Your task to perform on an android device: Clear all items from cart on target. Search for "logitech g502" on target, select the first entry, and add it to the cart. Image 0: 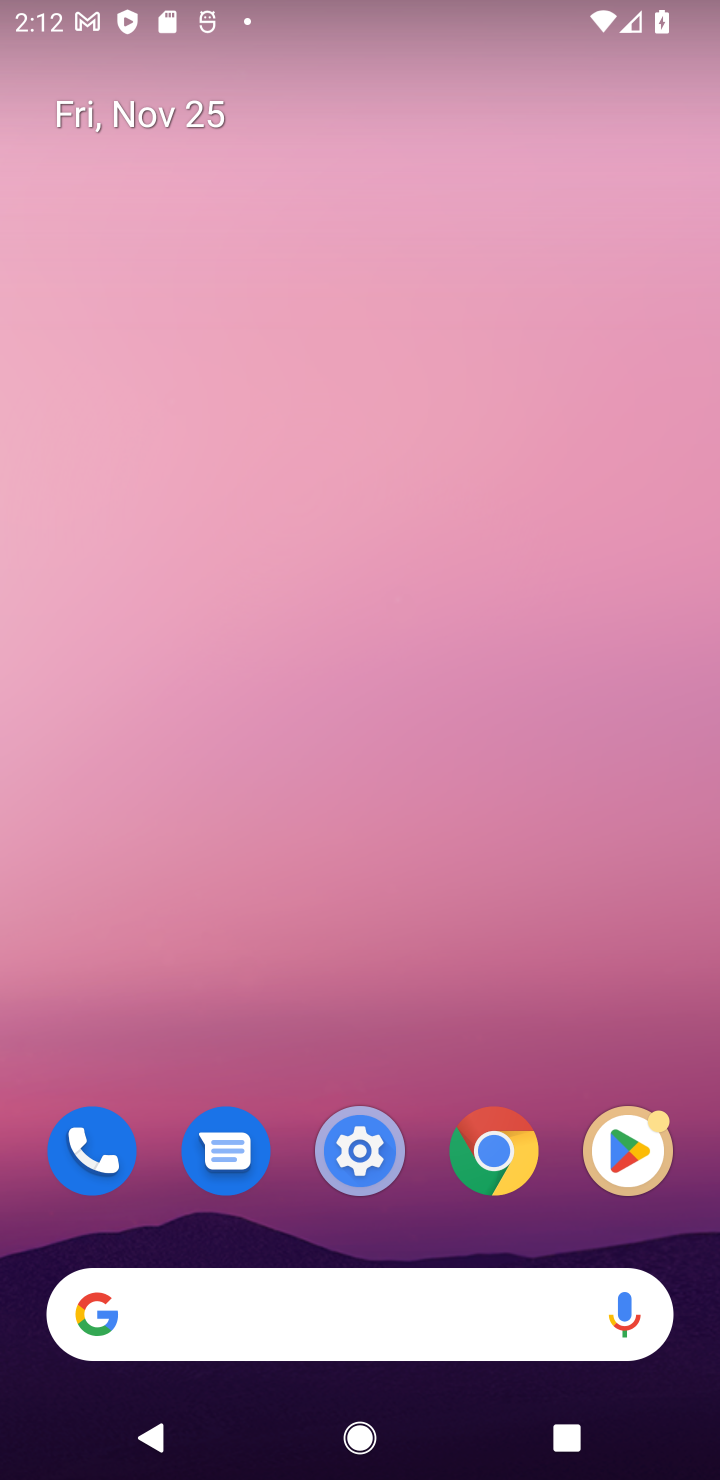
Step 0: click (399, 1349)
Your task to perform on an android device: Clear all items from cart on target. Search for "logitech g502" on target, select the first entry, and add it to the cart. Image 1: 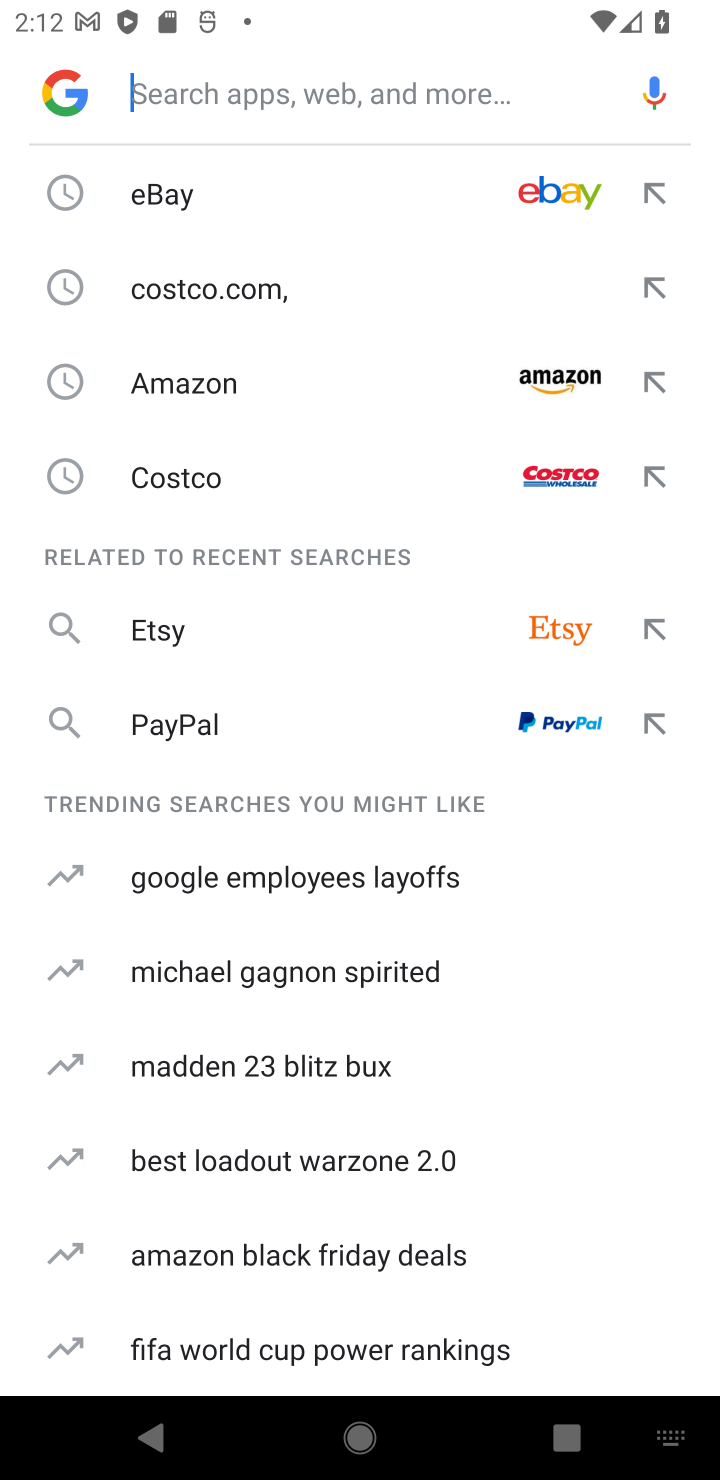
Step 1: type "target"
Your task to perform on an android device: Clear all items from cart on target. Search for "logitech g502" on target, select the first entry, and add it to the cart. Image 2: 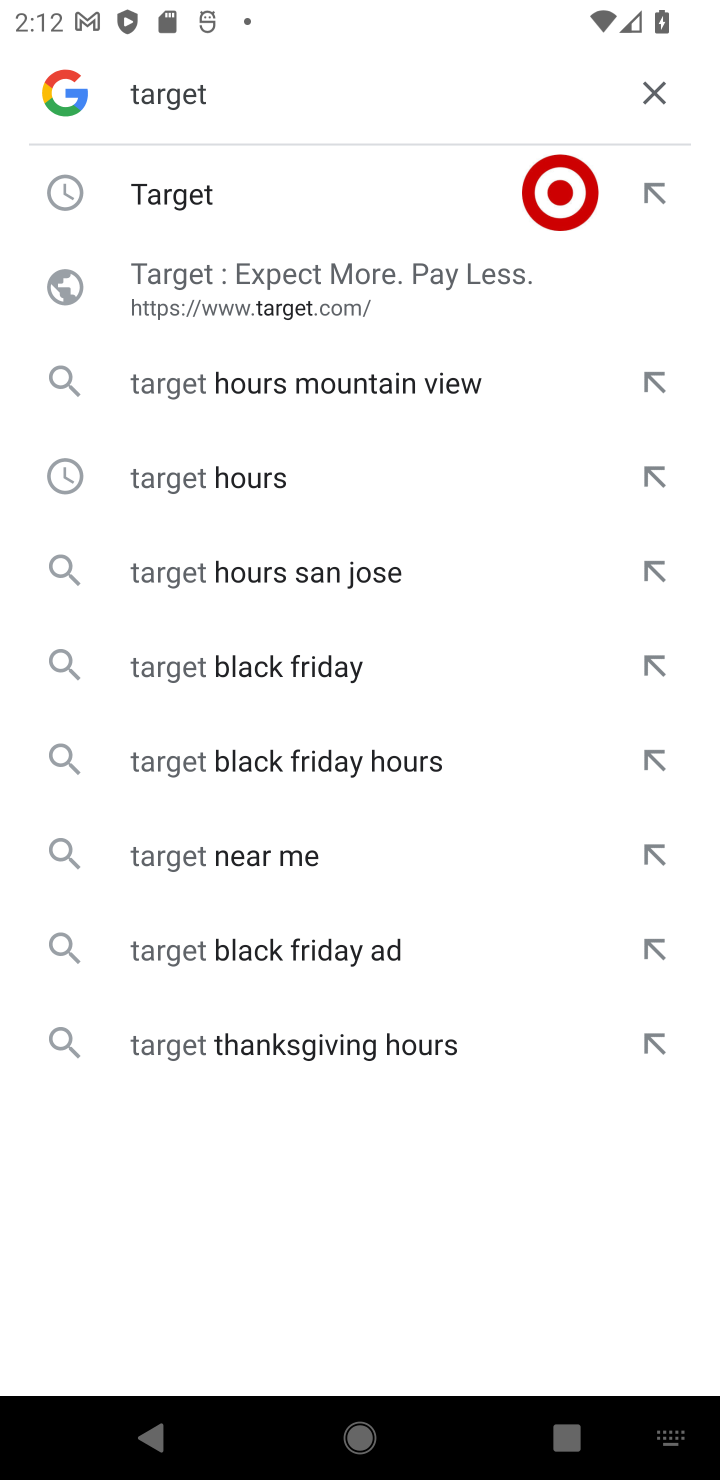
Step 2: click (391, 197)
Your task to perform on an android device: Clear all items from cart on target. Search for "logitech g502" on target, select the first entry, and add it to the cart. Image 3: 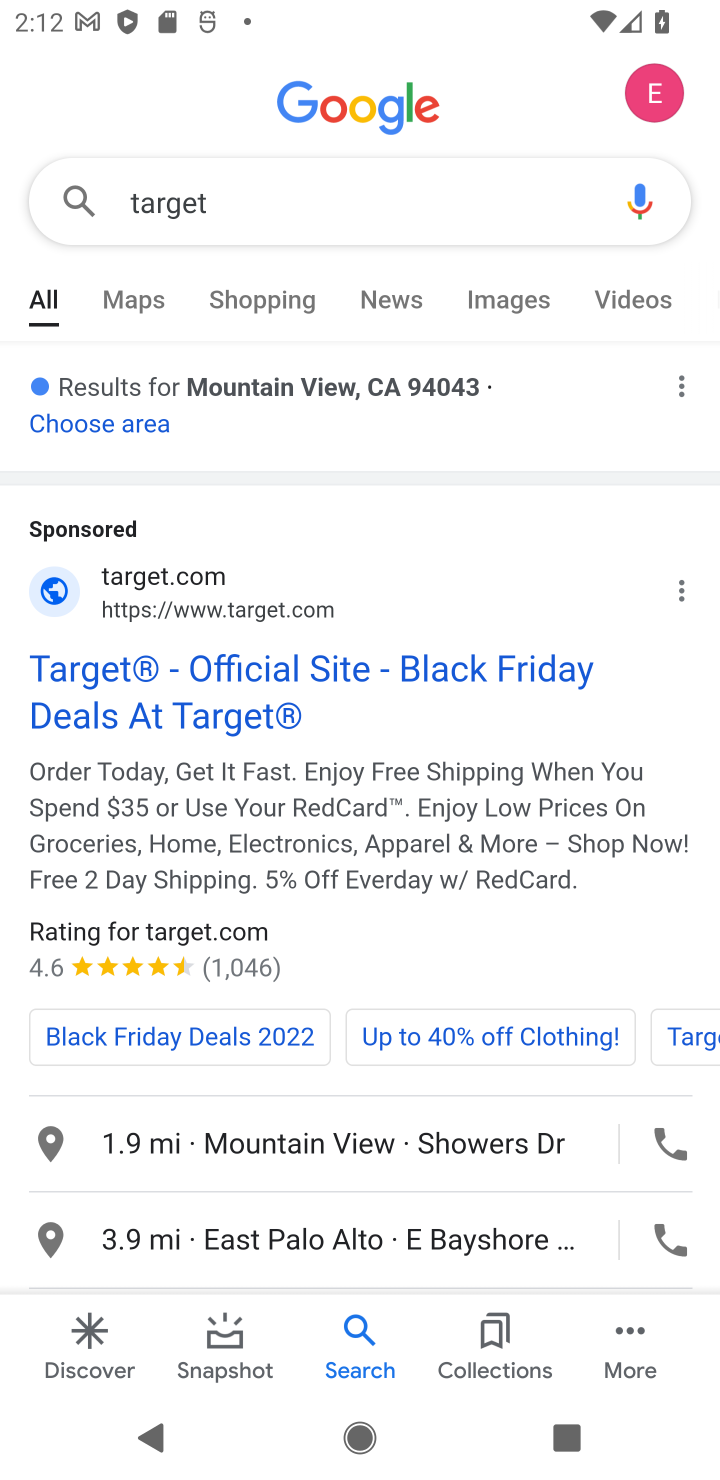
Step 3: click (185, 679)
Your task to perform on an android device: Clear all items from cart on target. Search for "logitech g502" on target, select the first entry, and add it to the cart. Image 4: 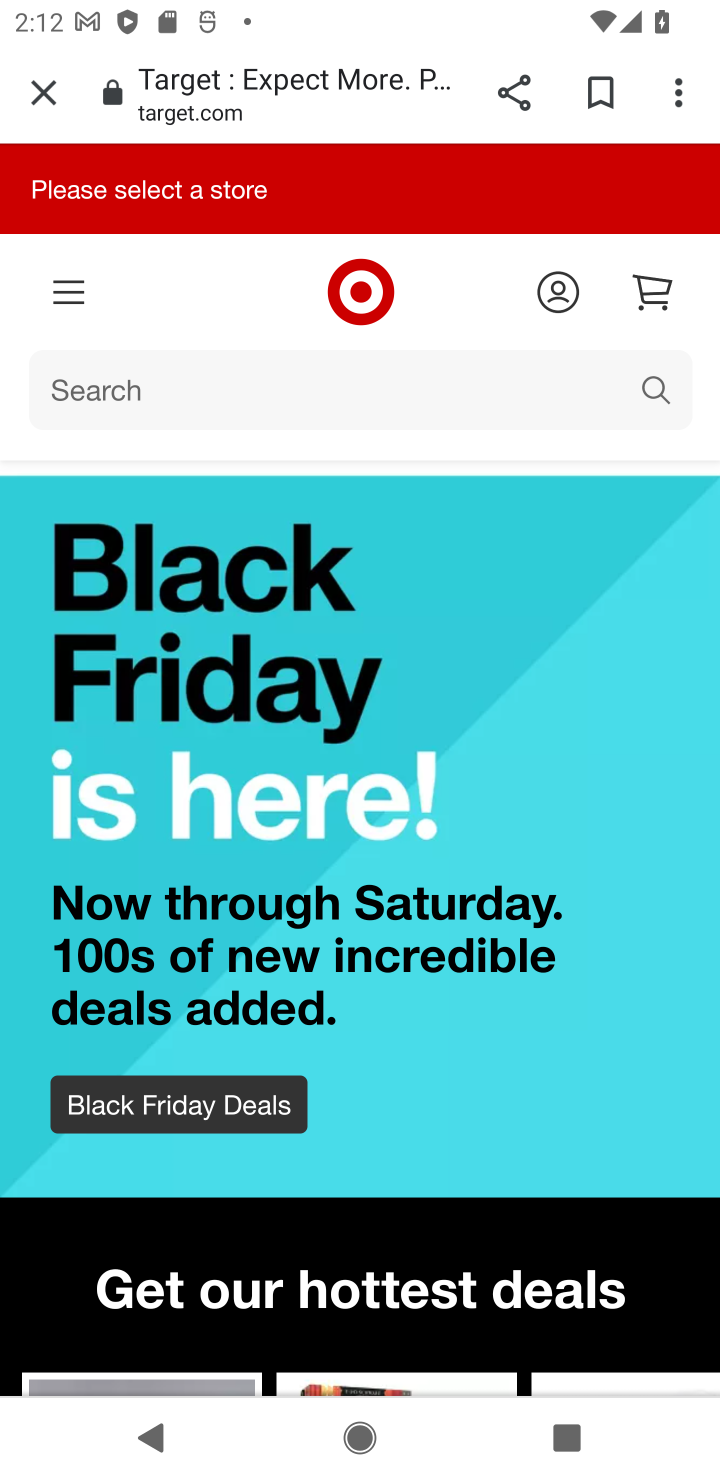
Step 4: click (225, 355)
Your task to perform on an android device: Clear all items from cart on target. Search for "logitech g502" on target, select the first entry, and add it to the cart. Image 5: 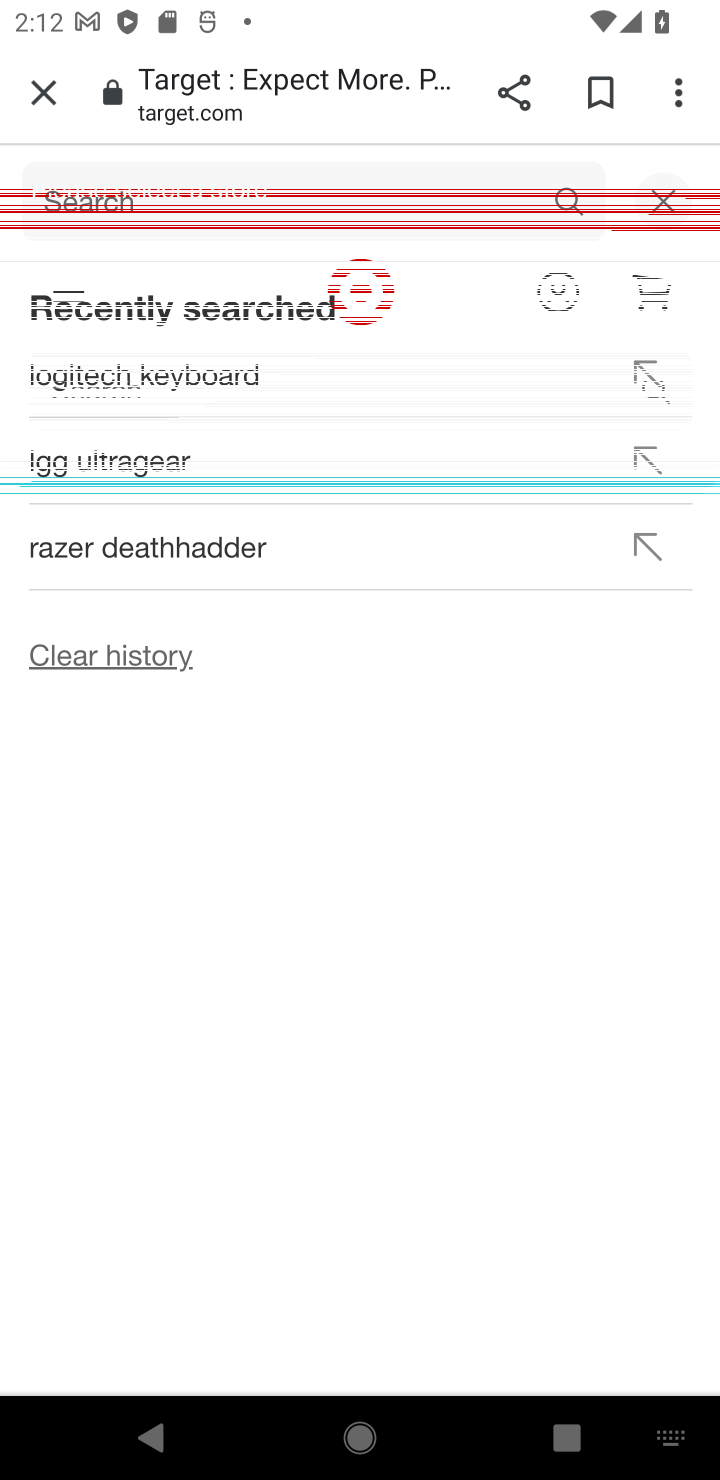
Step 5: type "logitech g502"
Your task to perform on an android device: Clear all items from cart on target. Search for "logitech g502" on target, select the first entry, and add it to the cart. Image 6: 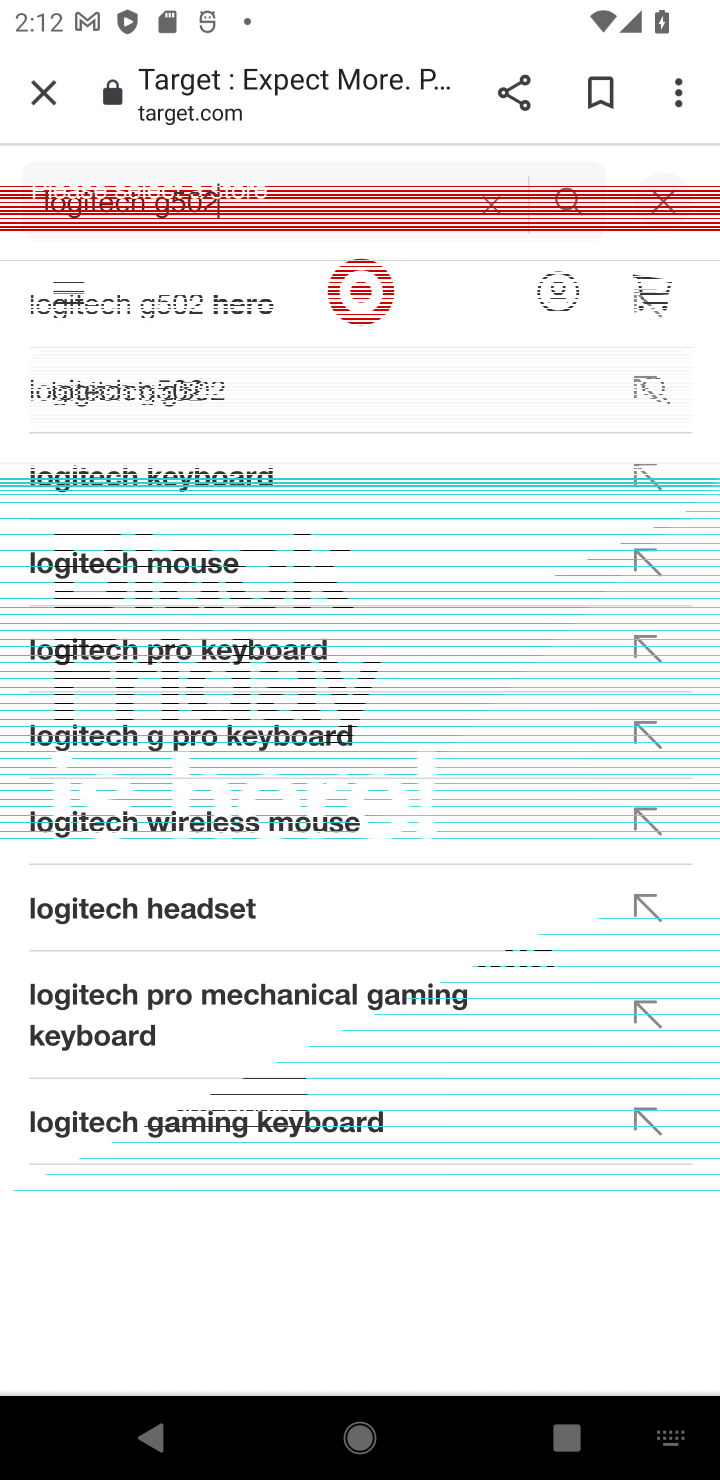
Step 6: click (291, 376)
Your task to perform on an android device: Clear all items from cart on target. Search for "logitech g502" on target, select the first entry, and add it to the cart. Image 7: 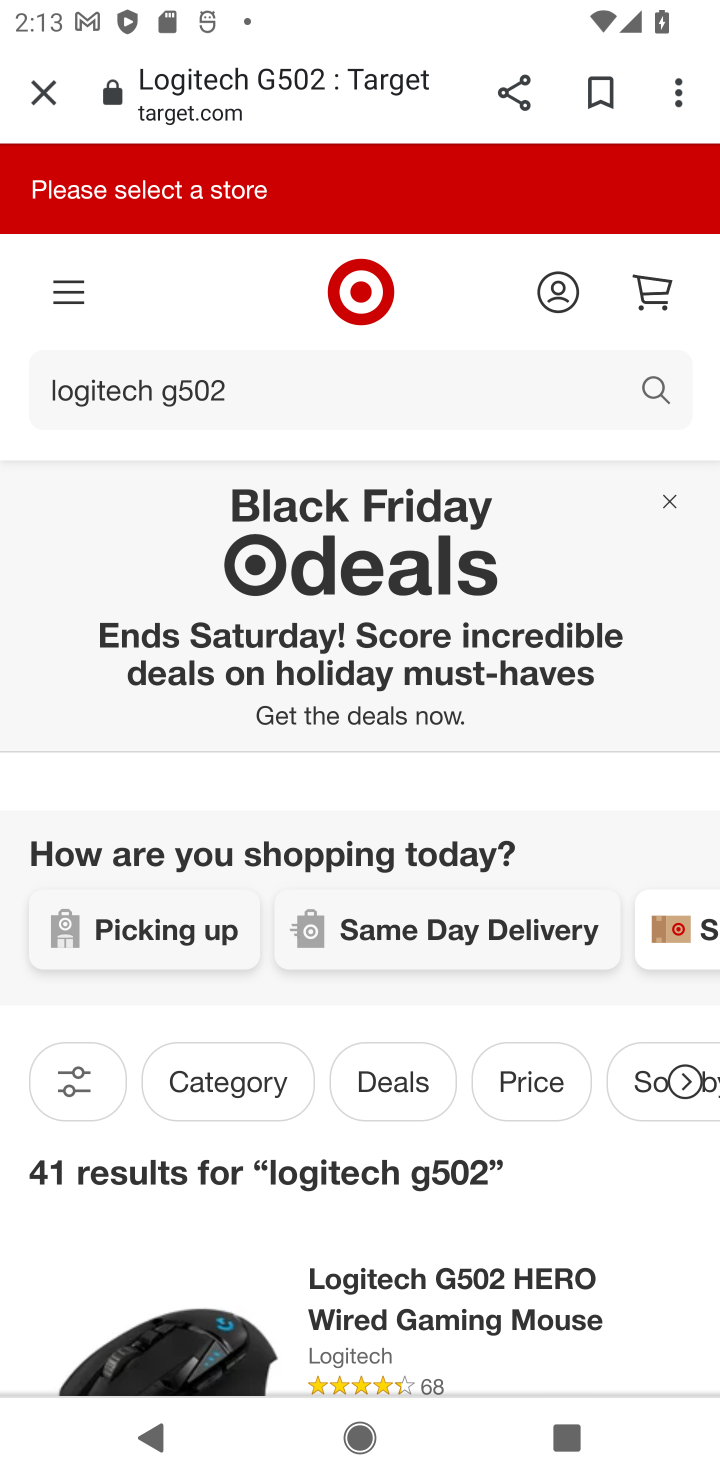
Step 7: click (422, 1376)
Your task to perform on an android device: Clear all items from cart on target. Search for "logitech g502" on target, select the first entry, and add it to the cart. Image 8: 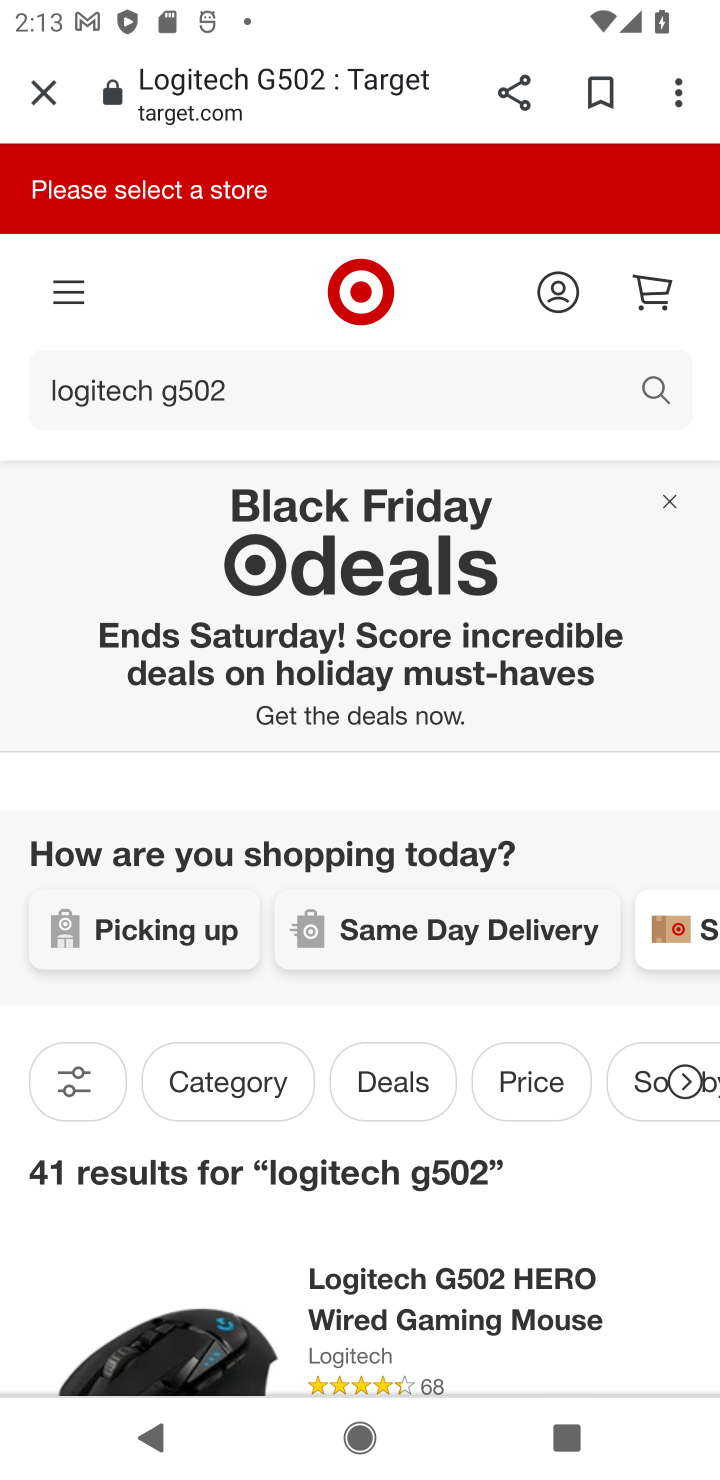
Step 8: click (422, 1376)
Your task to perform on an android device: Clear all items from cart on target. Search for "logitech g502" on target, select the first entry, and add it to the cart. Image 9: 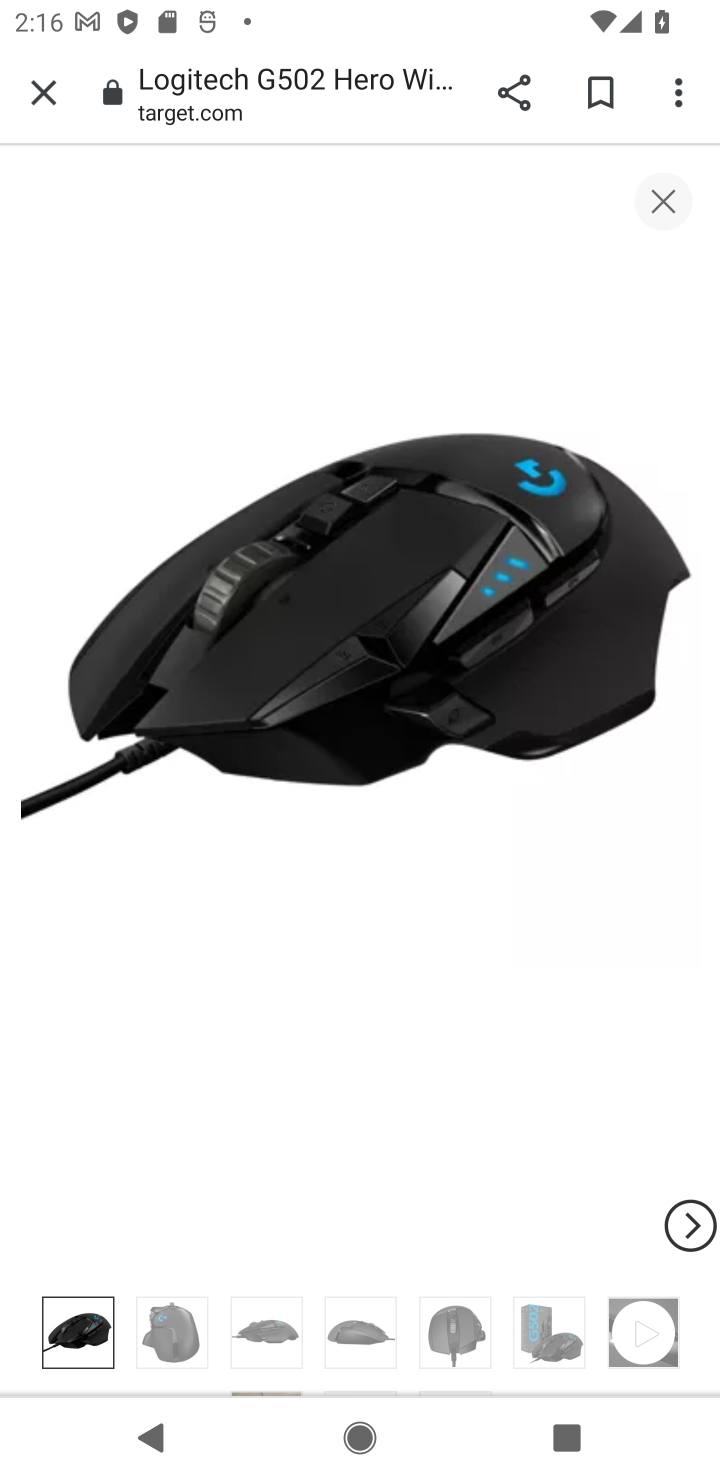
Step 9: task complete